Your task to perform on an android device: Search for seafood restaurants on Google Maps Image 0: 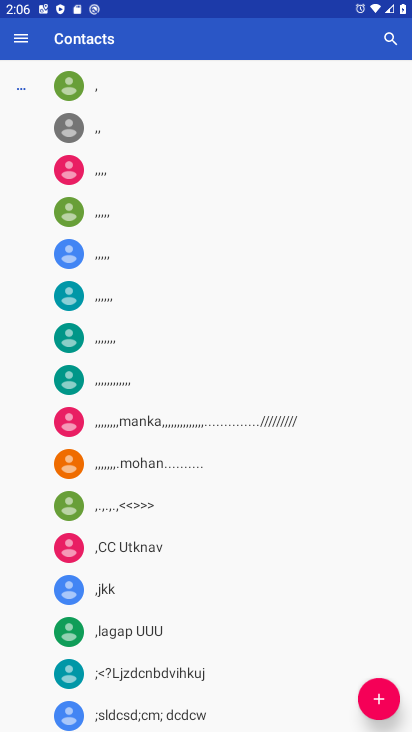
Step 0: press home button
Your task to perform on an android device: Search for seafood restaurants on Google Maps Image 1: 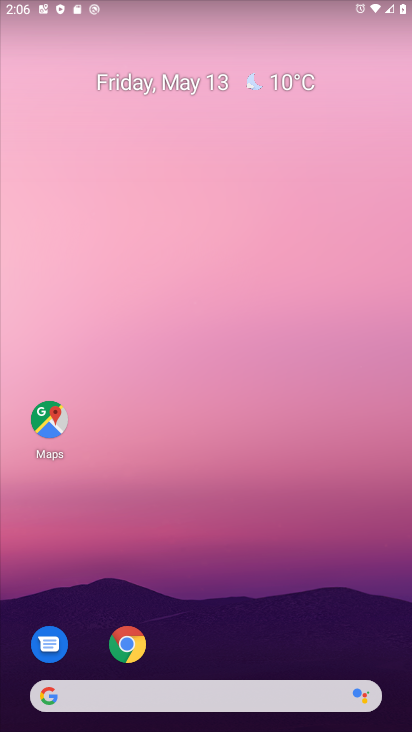
Step 1: drag from (184, 728) to (229, 273)
Your task to perform on an android device: Search for seafood restaurants on Google Maps Image 2: 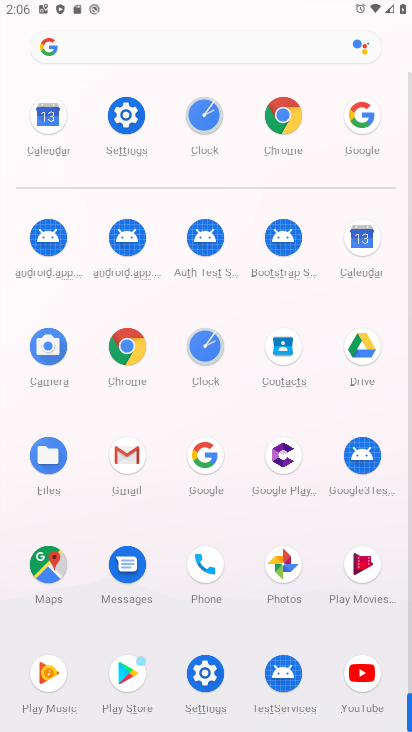
Step 2: click (42, 563)
Your task to perform on an android device: Search for seafood restaurants on Google Maps Image 3: 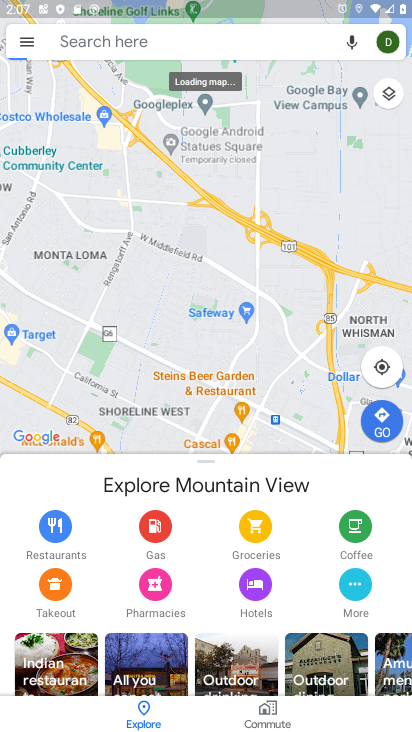
Step 3: click (136, 41)
Your task to perform on an android device: Search for seafood restaurants on Google Maps Image 4: 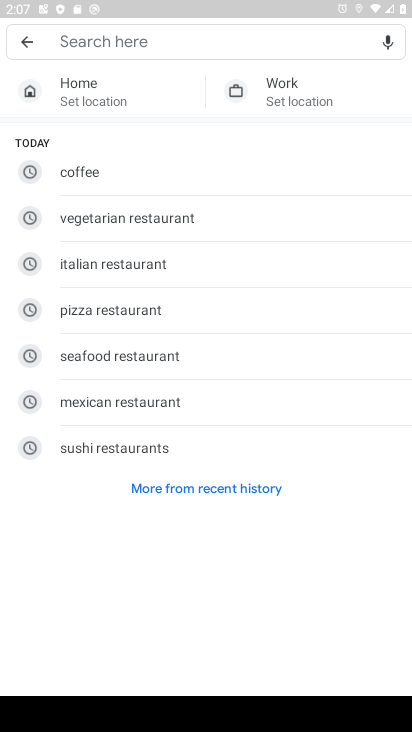
Step 4: type "seafood restaurants"
Your task to perform on an android device: Search for seafood restaurants on Google Maps Image 5: 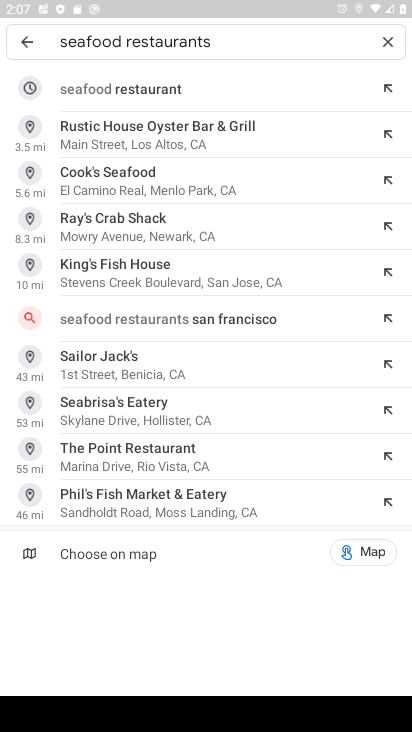
Step 5: click (149, 88)
Your task to perform on an android device: Search for seafood restaurants on Google Maps Image 6: 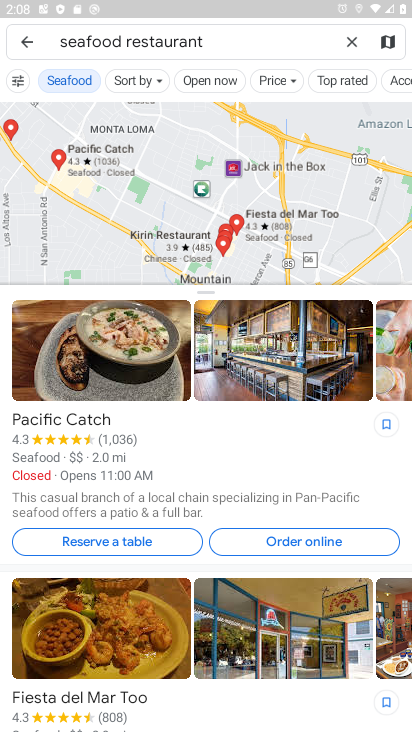
Step 6: task complete